Your task to perform on an android device: What's the weather today? Image 0: 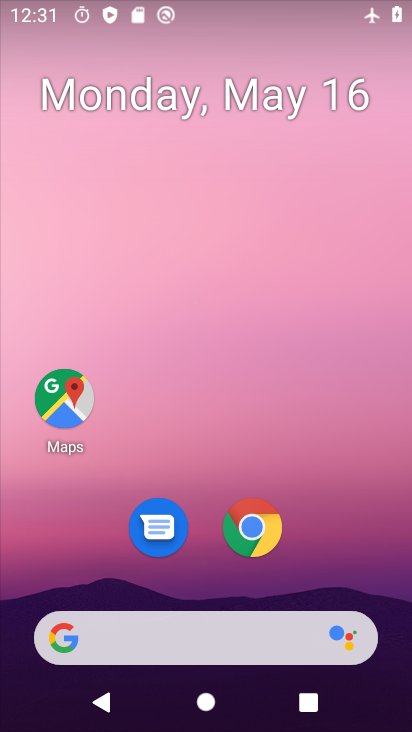
Step 0: click (72, 640)
Your task to perform on an android device: What's the weather today? Image 1: 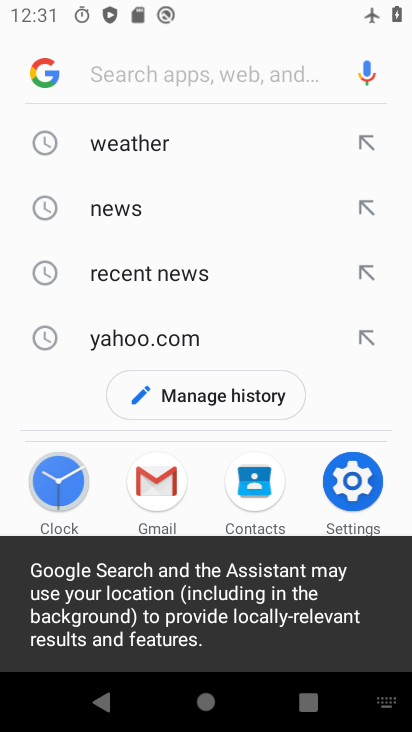
Step 1: click (138, 142)
Your task to perform on an android device: What's the weather today? Image 2: 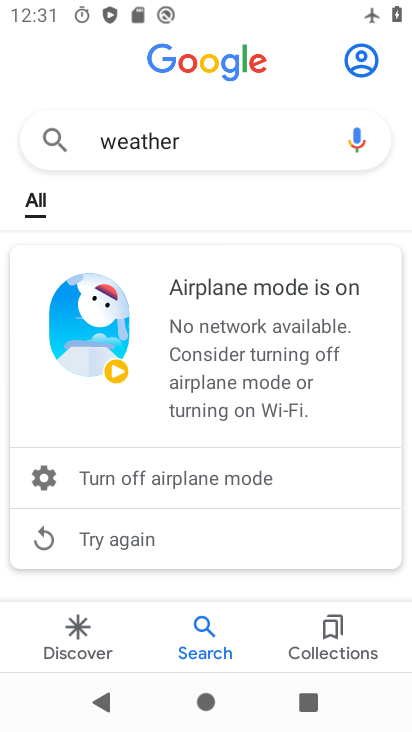
Step 2: press home button
Your task to perform on an android device: What's the weather today? Image 3: 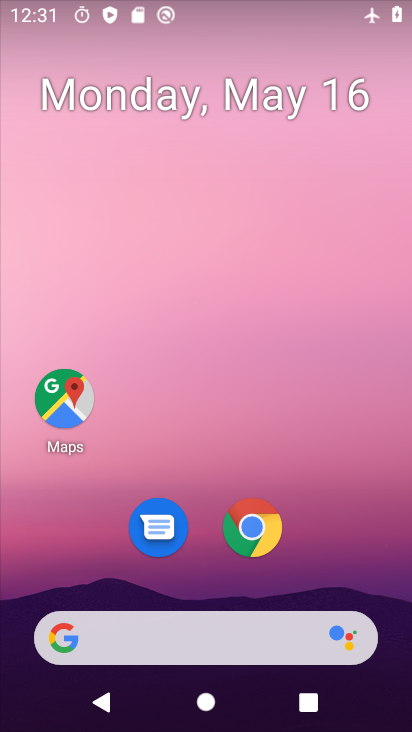
Step 3: drag from (181, 631) to (359, 117)
Your task to perform on an android device: What's the weather today? Image 4: 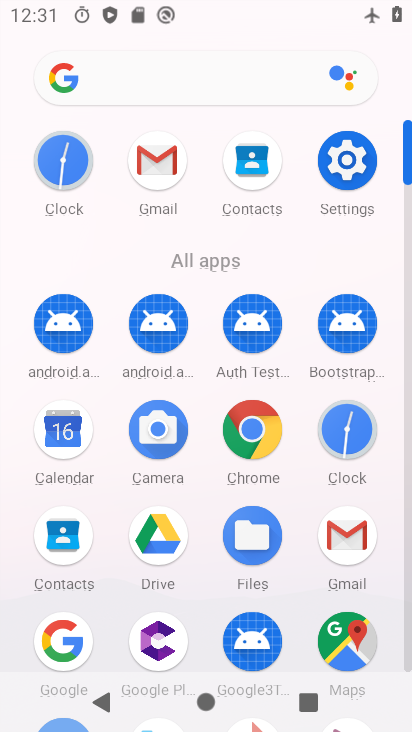
Step 4: click (350, 165)
Your task to perform on an android device: What's the weather today? Image 5: 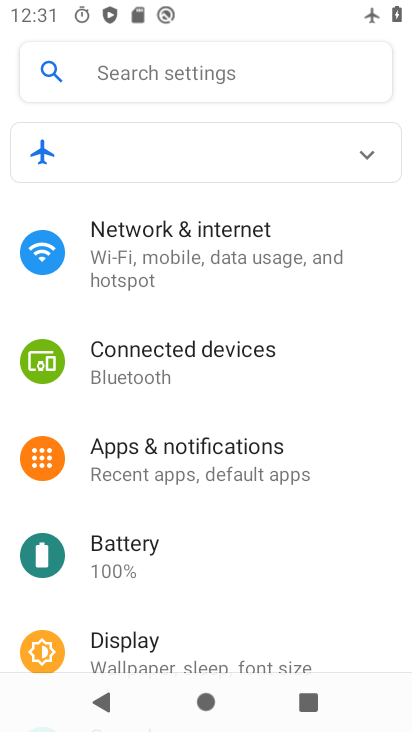
Step 5: click (253, 247)
Your task to perform on an android device: What's the weather today? Image 6: 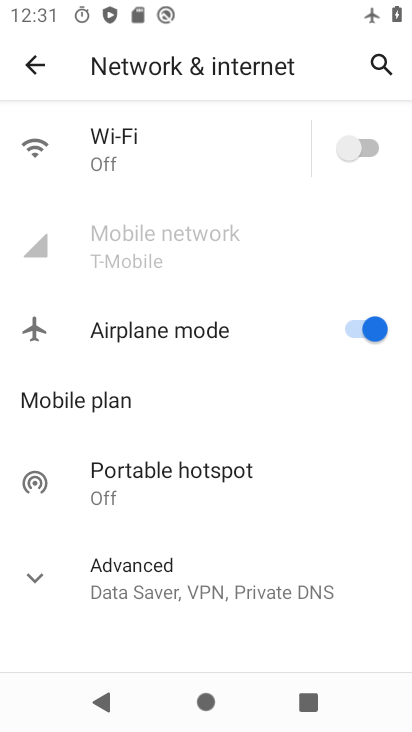
Step 6: click (367, 146)
Your task to perform on an android device: What's the weather today? Image 7: 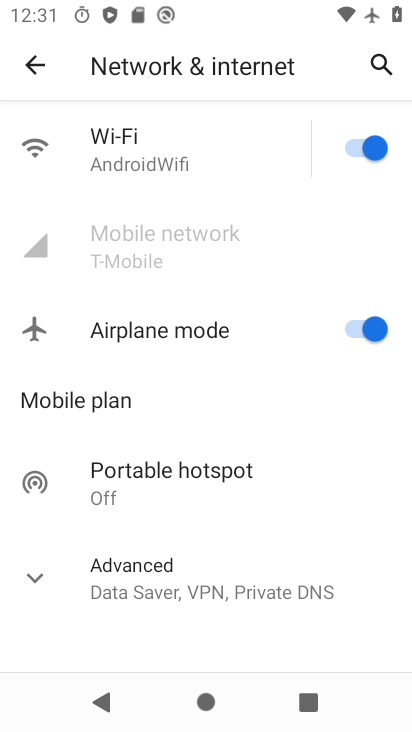
Step 7: task complete